Your task to perform on an android device: open sync settings in chrome Image 0: 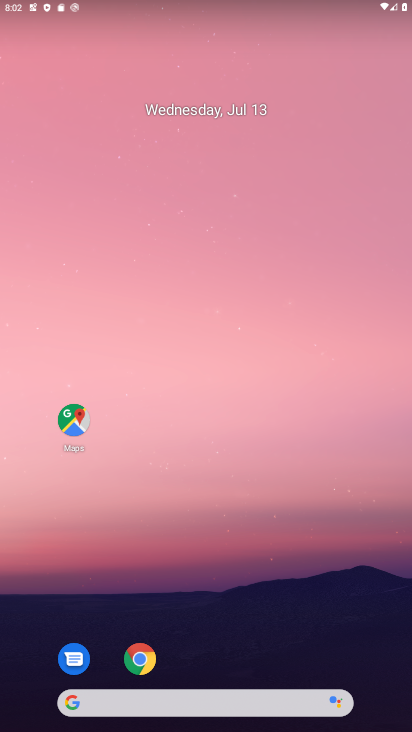
Step 0: click (148, 645)
Your task to perform on an android device: open sync settings in chrome Image 1: 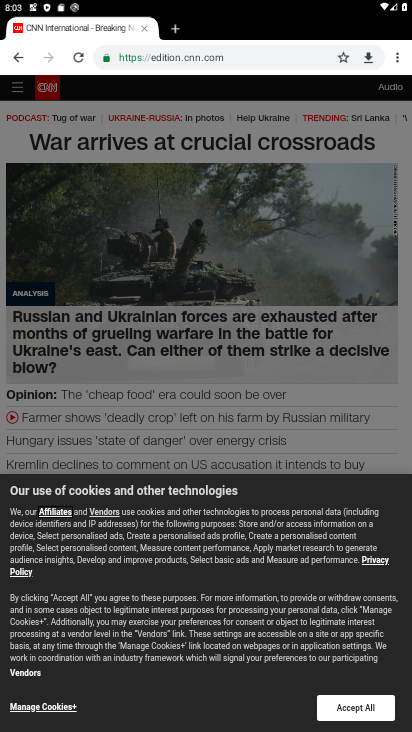
Step 1: click (397, 50)
Your task to perform on an android device: open sync settings in chrome Image 2: 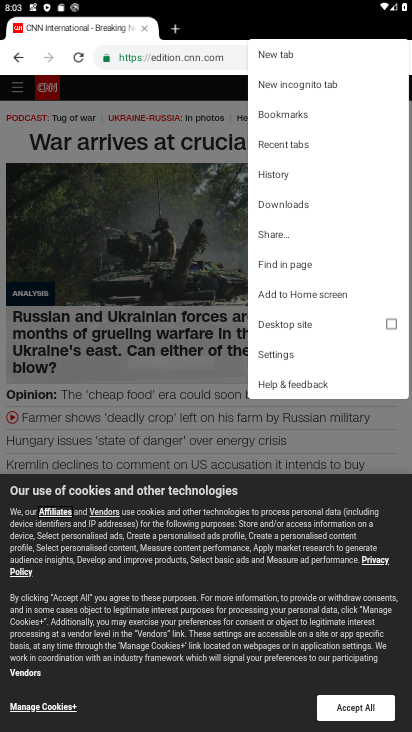
Step 2: click (311, 352)
Your task to perform on an android device: open sync settings in chrome Image 3: 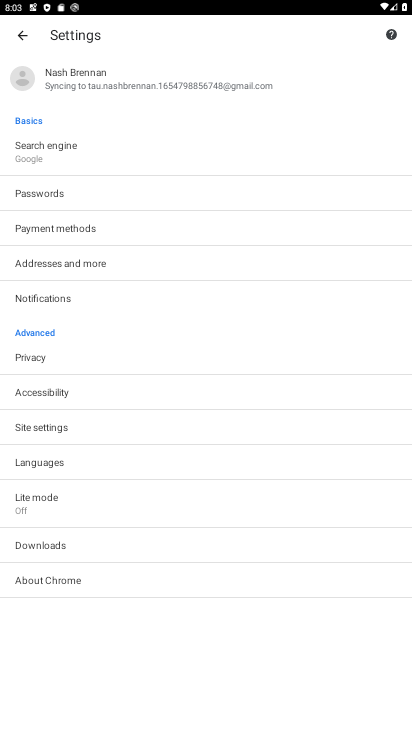
Step 3: click (73, 78)
Your task to perform on an android device: open sync settings in chrome Image 4: 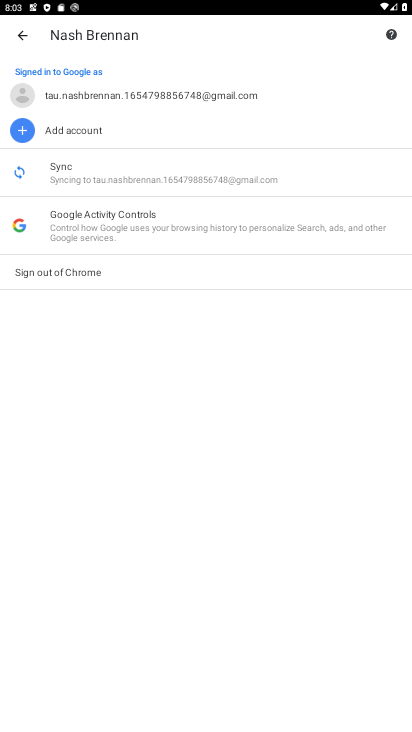
Step 4: click (86, 167)
Your task to perform on an android device: open sync settings in chrome Image 5: 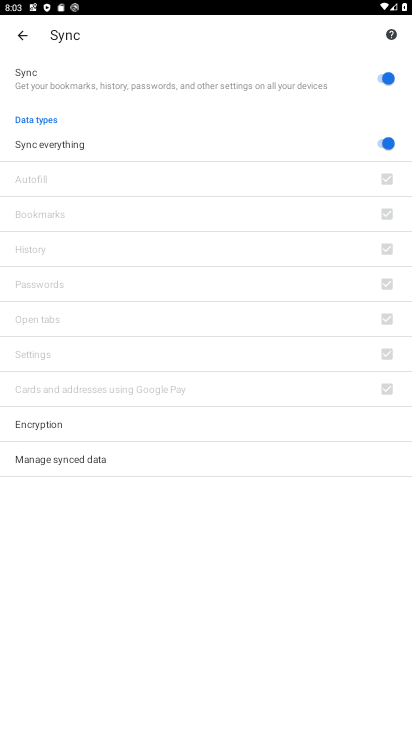
Step 5: task complete